Your task to perform on an android device: clear all cookies in the chrome app Image 0: 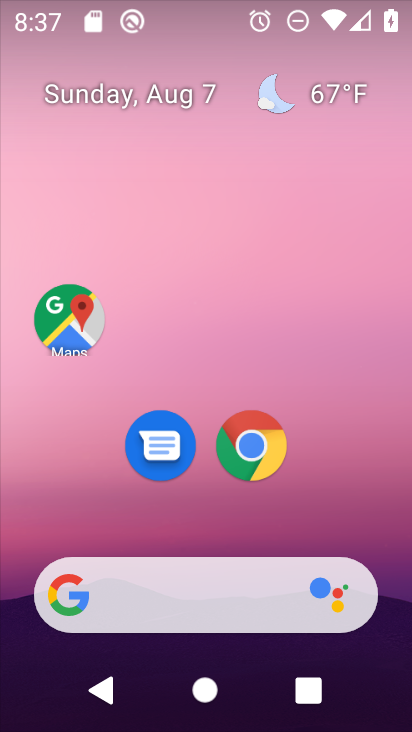
Step 0: press home button
Your task to perform on an android device: clear all cookies in the chrome app Image 1: 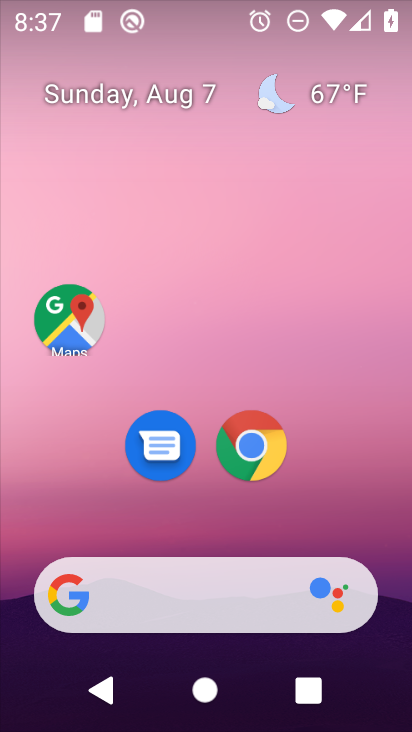
Step 1: click (247, 446)
Your task to perform on an android device: clear all cookies in the chrome app Image 2: 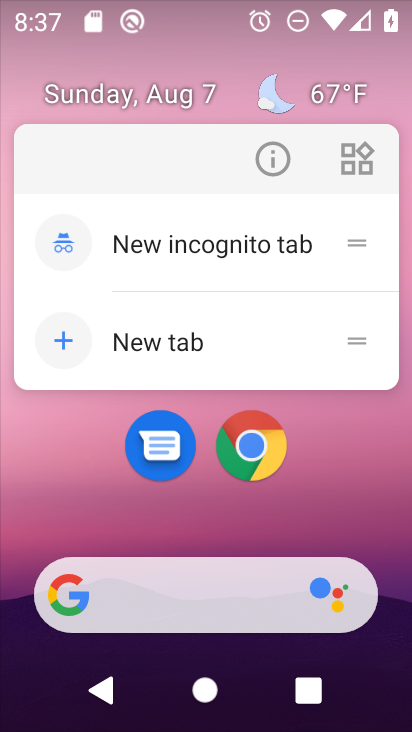
Step 2: click (248, 441)
Your task to perform on an android device: clear all cookies in the chrome app Image 3: 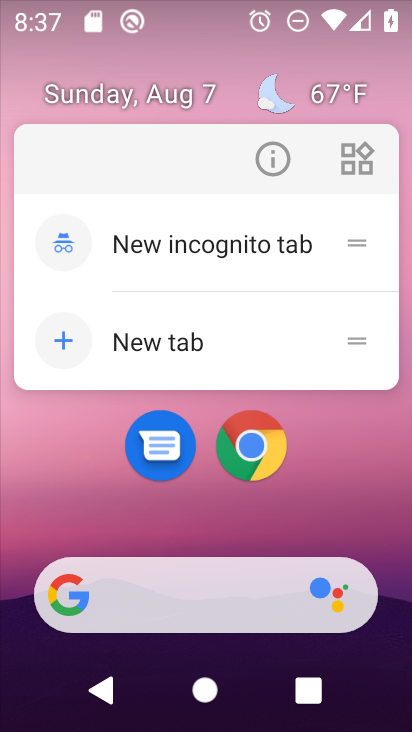
Step 3: click (325, 475)
Your task to perform on an android device: clear all cookies in the chrome app Image 4: 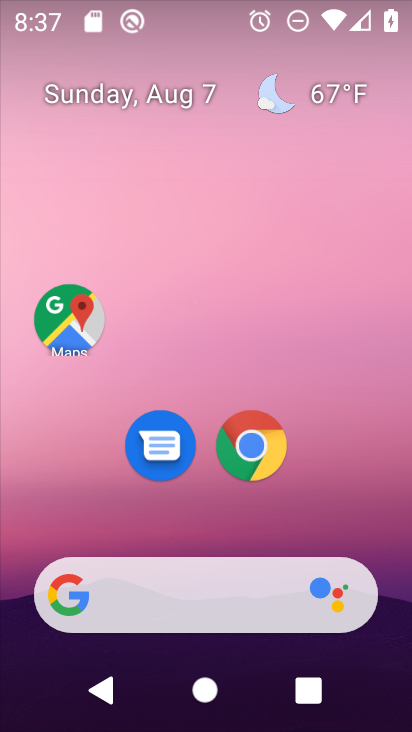
Step 4: click (253, 440)
Your task to perform on an android device: clear all cookies in the chrome app Image 5: 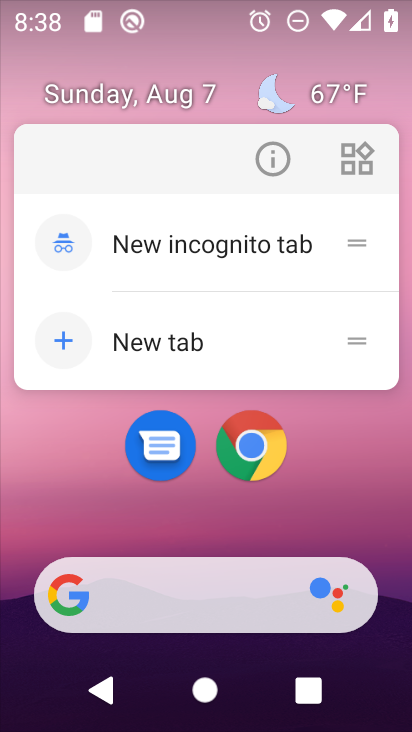
Step 5: click (326, 517)
Your task to perform on an android device: clear all cookies in the chrome app Image 6: 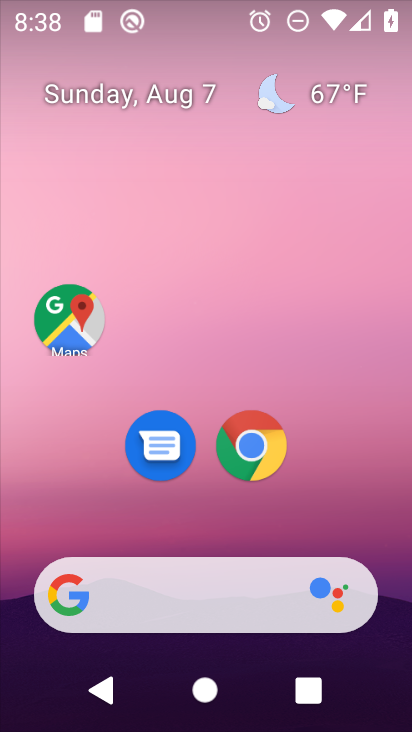
Step 6: drag from (299, 531) to (277, 28)
Your task to perform on an android device: clear all cookies in the chrome app Image 7: 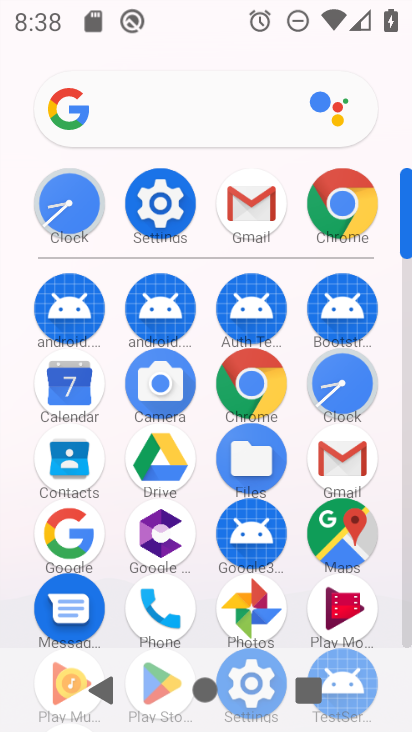
Step 7: click (242, 381)
Your task to perform on an android device: clear all cookies in the chrome app Image 8: 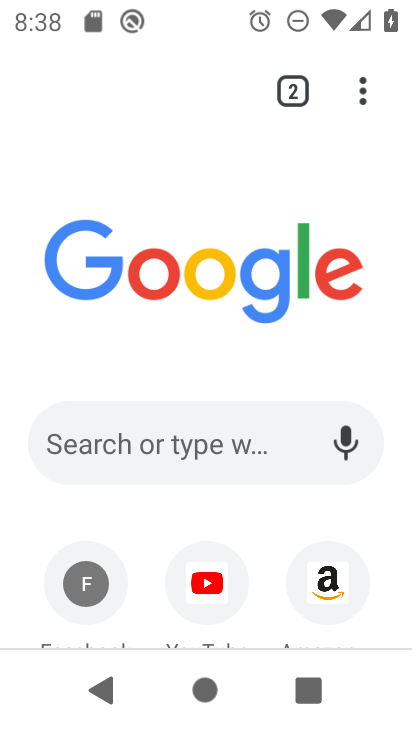
Step 8: click (365, 91)
Your task to perform on an android device: clear all cookies in the chrome app Image 9: 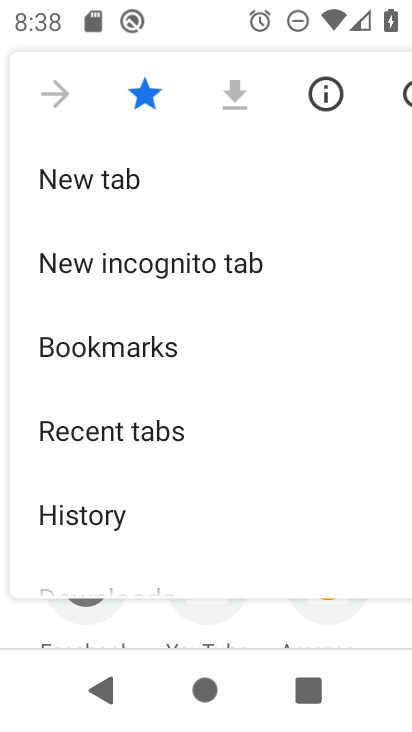
Step 9: click (142, 505)
Your task to perform on an android device: clear all cookies in the chrome app Image 10: 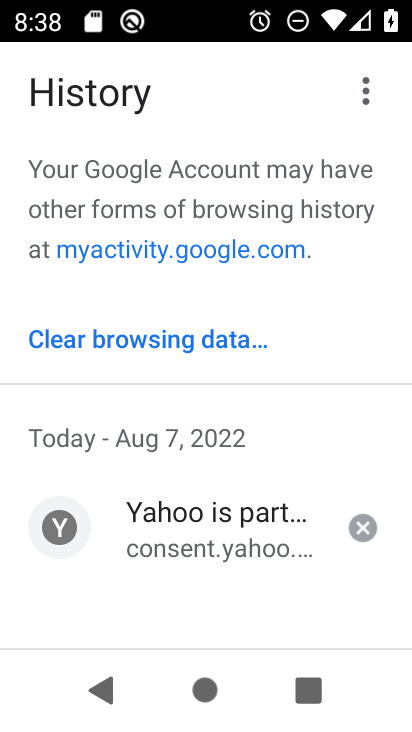
Step 10: click (149, 339)
Your task to perform on an android device: clear all cookies in the chrome app Image 11: 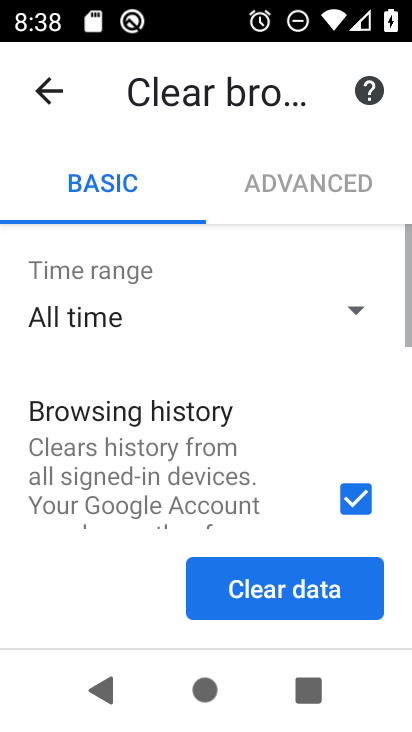
Step 11: drag from (246, 483) to (269, 276)
Your task to perform on an android device: clear all cookies in the chrome app Image 12: 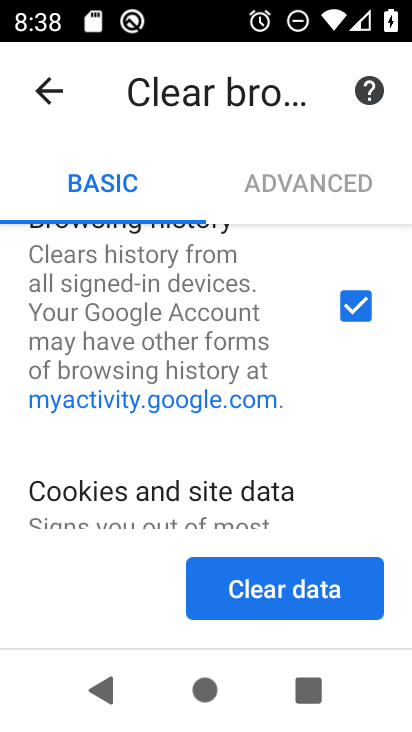
Step 12: click (360, 298)
Your task to perform on an android device: clear all cookies in the chrome app Image 13: 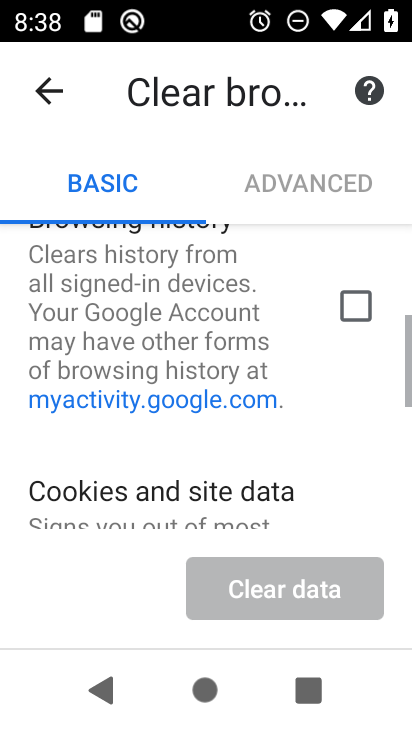
Step 13: drag from (221, 482) to (259, 237)
Your task to perform on an android device: clear all cookies in the chrome app Image 14: 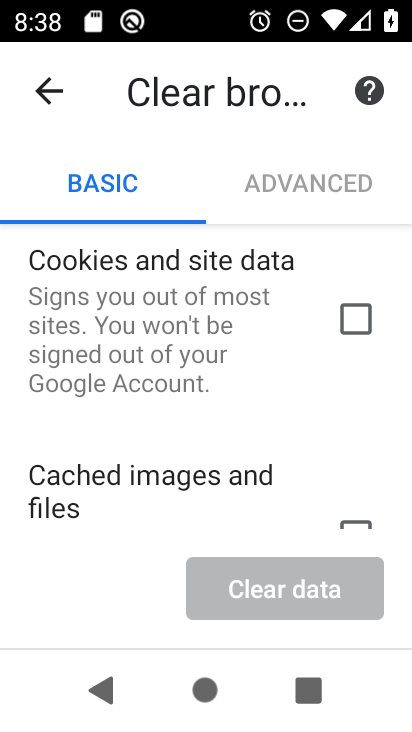
Step 14: click (356, 308)
Your task to perform on an android device: clear all cookies in the chrome app Image 15: 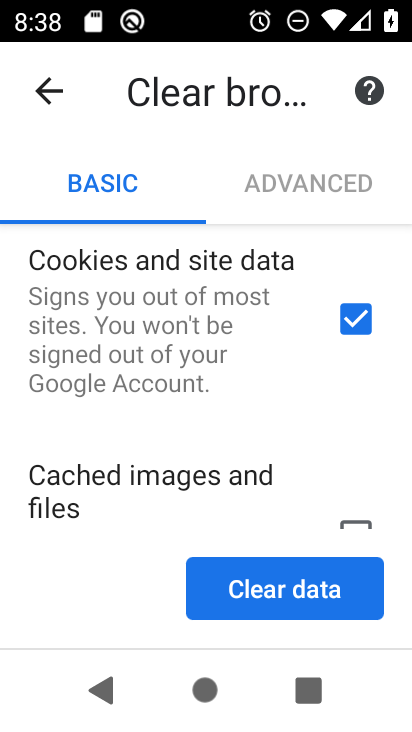
Step 15: click (288, 592)
Your task to perform on an android device: clear all cookies in the chrome app Image 16: 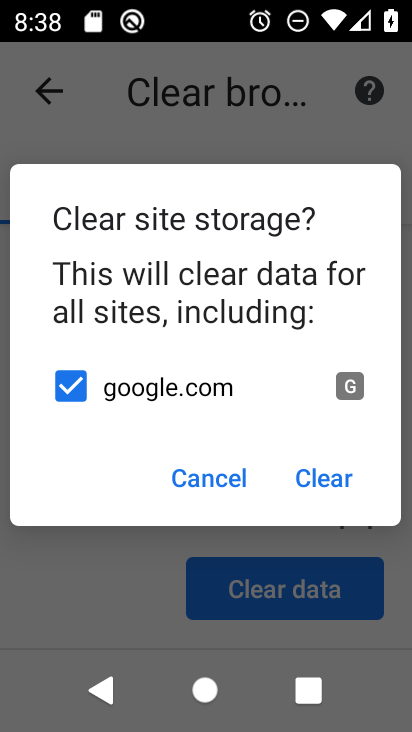
Step 16: click (305, 475)
Your task to perform on an android device: clear all cookies in the chrome app Image 17: 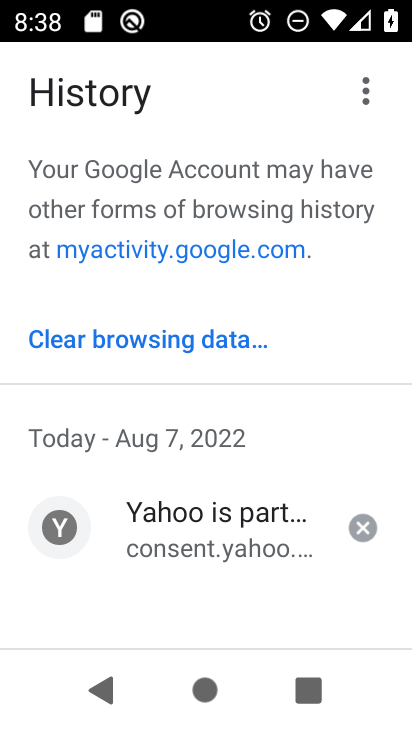
Step 17: task complete